Your task to perform on an android device: toggle show notifications on the lock screen Image 0: 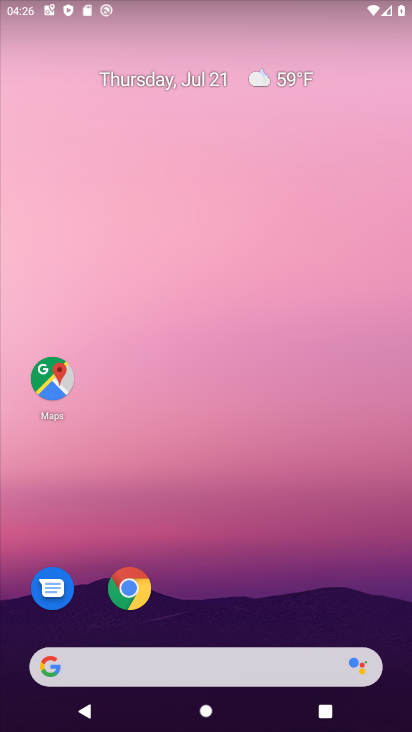
Step 0: drag from (233, 591) to (212, 202)
Your task to perform on an android device: toggle show notifications on the lock screen Image 1: 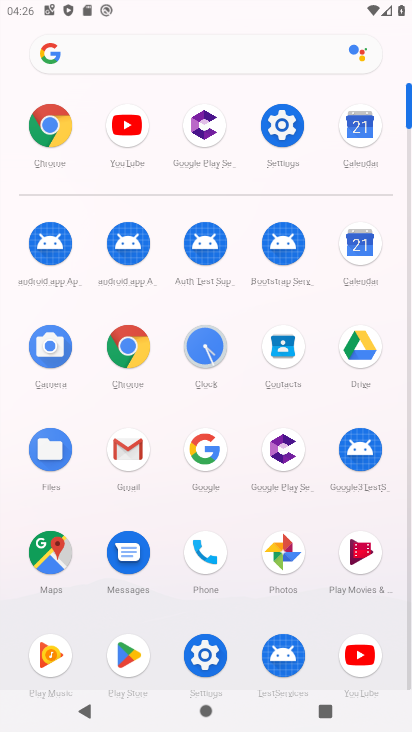
Step 1: click (195, 658)
Your task to perform on an android device: toggle show notifications on the lock screen Image 2: 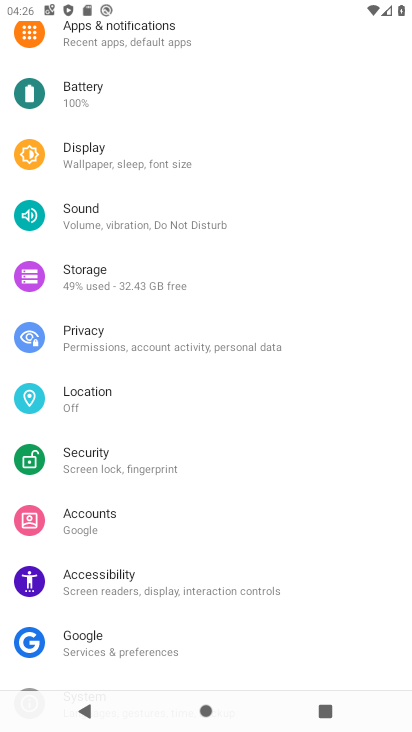
Step 2: click (128, 42)
Your task to perform on an android device: toggle show notifications on the lock screen Image 3: 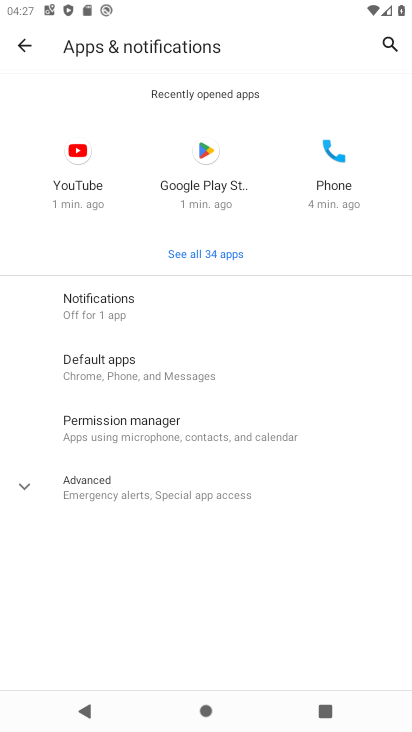
Step 3: click (108, 300)
Your task to perform on an android device: toggle show notifications on the lock screen Image 4: 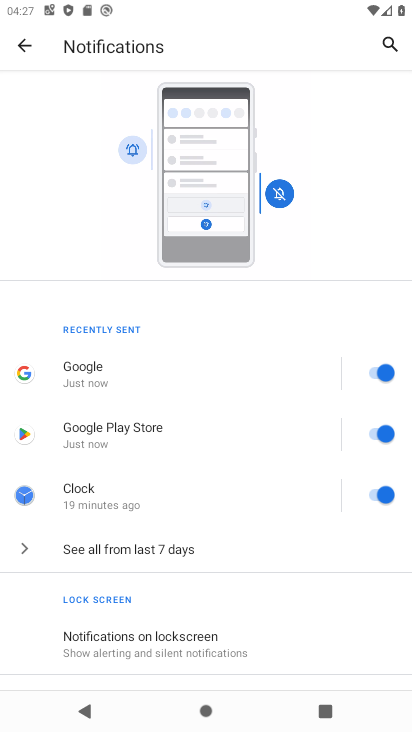
Step 4: click (137, 654)
Your task to perform on an android device: toggle show notifications on the lock screen Image 5: 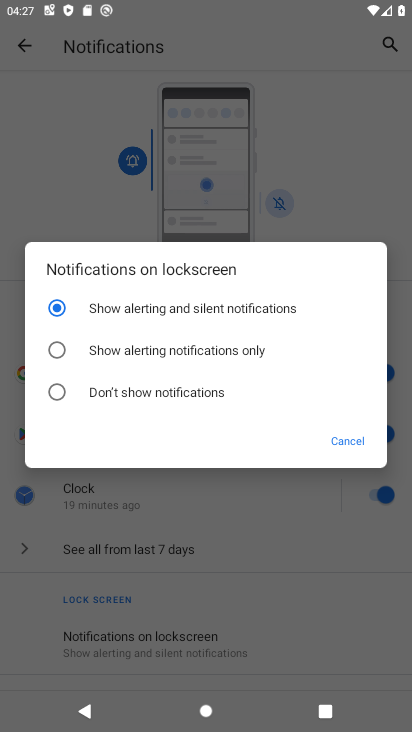
Step 5: click (68, 395)
Your task to perform on an android device: toggle show notifications on the lock screen Image 6: 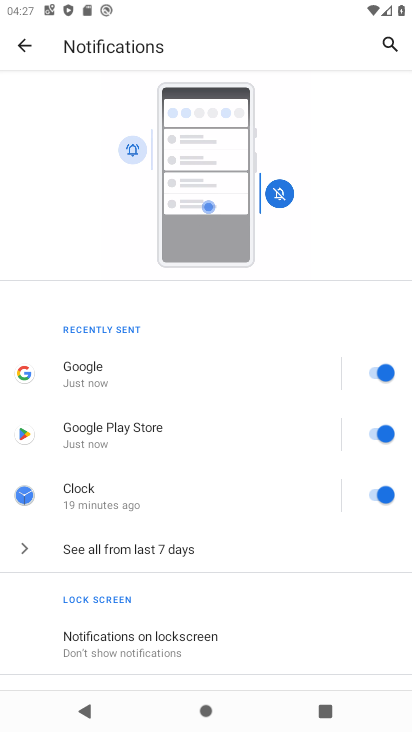
Step 6: task complete